Your task to perform on an android device: Search for Italian restaurants on Maps Image 0: 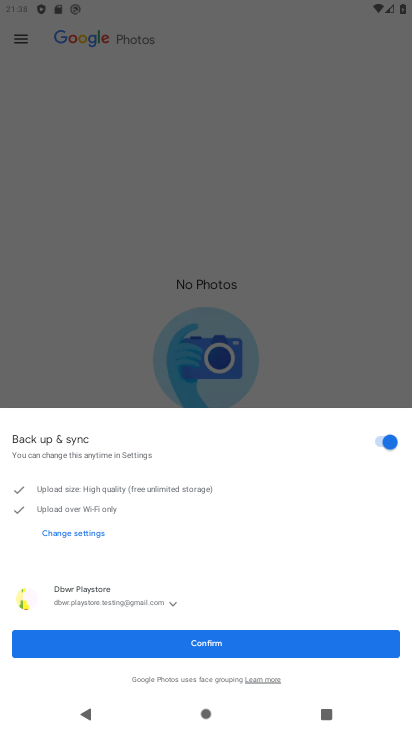
Step 0: press home button
Your task to perform on an android device: Search for Italian restaurants on Maps Image 1: 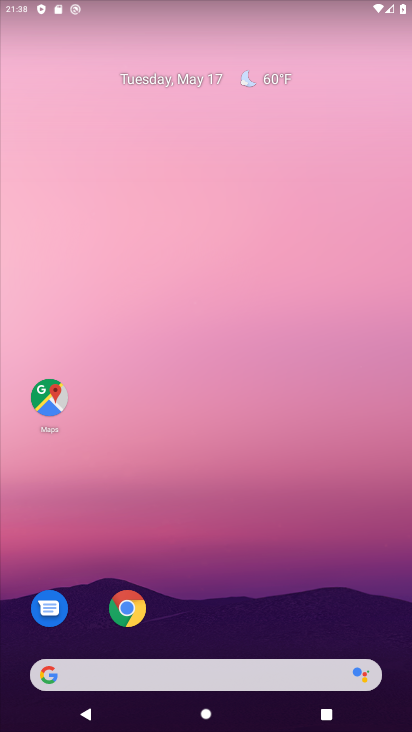
Step 1: click (46, 399)
Your task to perform on an android device: Search for Italian restaurants on Maps Image 2: 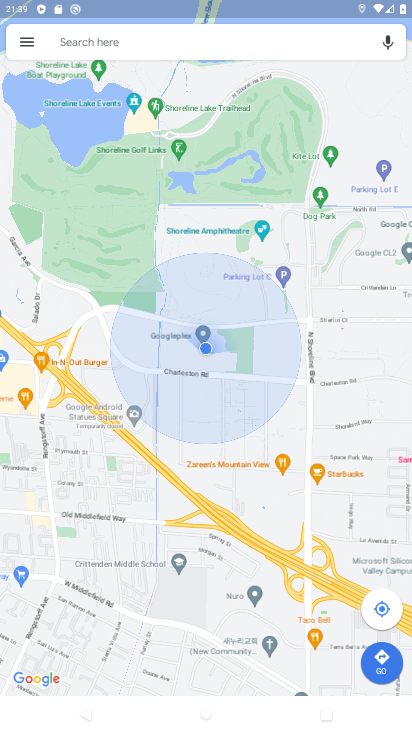
Step 2: click (120, 36)
Your task to perform on an android device: Search for Italian restaurants on Maps Image 3: 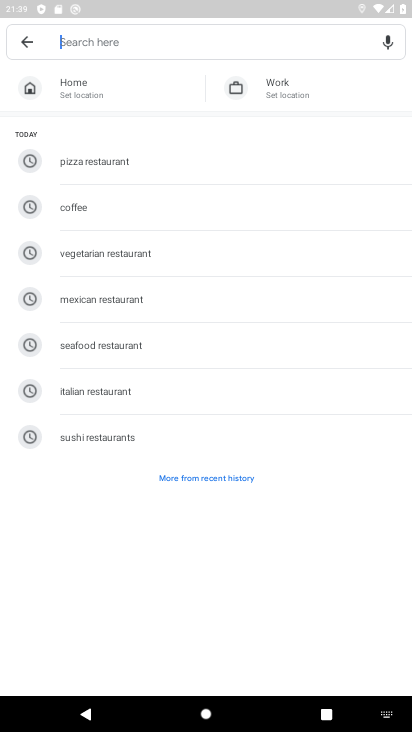
Step 3: click (91, 389)
Your task to perform on an android device: Search for Italian restaurants on Maps Image 4: 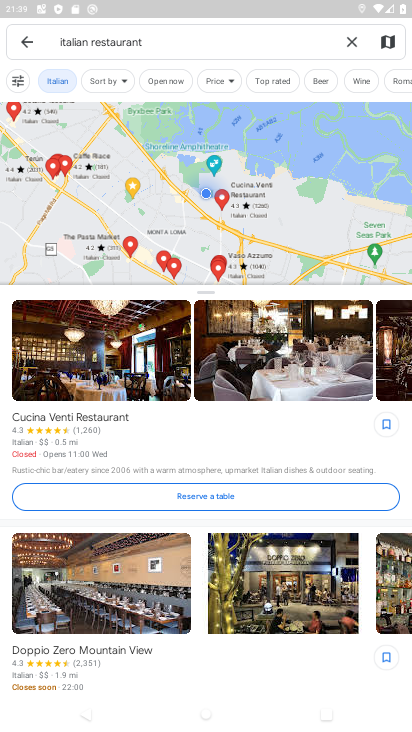
Step 4: task complete